Your task to perform on an android device: turn pop-ups on in chrome Image 0: 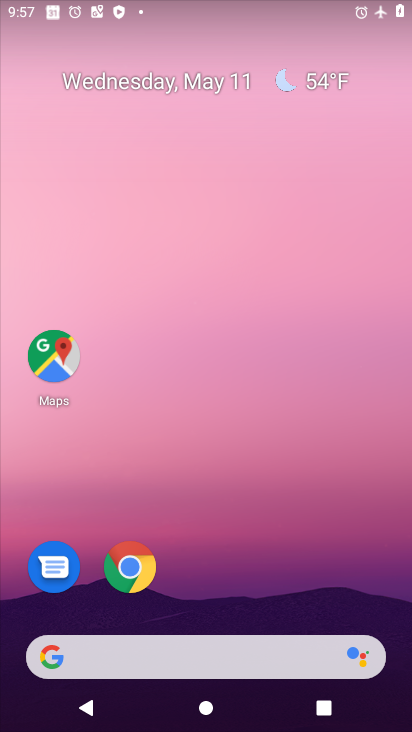
Step 0: click (149, 563)
Your task to perform on an android device: turn pop-ups on in chrome Image 1: 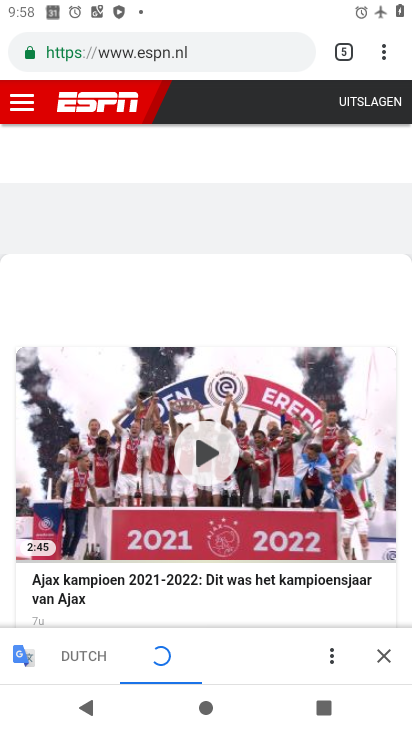
Step 1: click (386, 61)
Your task to perform on an android device: turn pop-ups on in chrome Image 2: 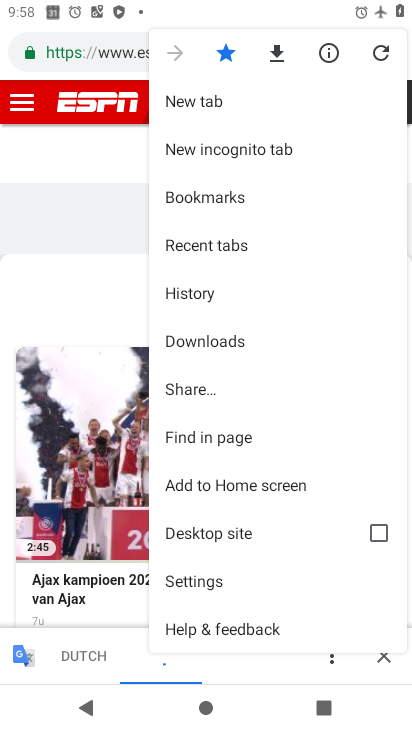
Step 2: click (203, 578)
Your task to perform on an android device: turn pop-ups on in chrome Image 3: 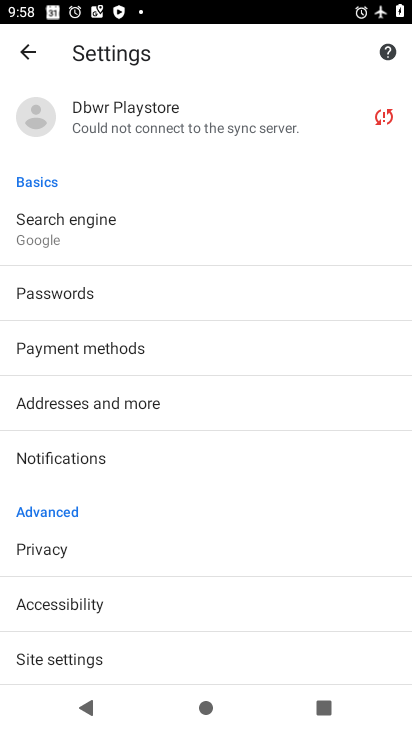
Step 3: click (59, 655)
Your task to perform on an android device: turn pop-ups on in chrome Image 4: 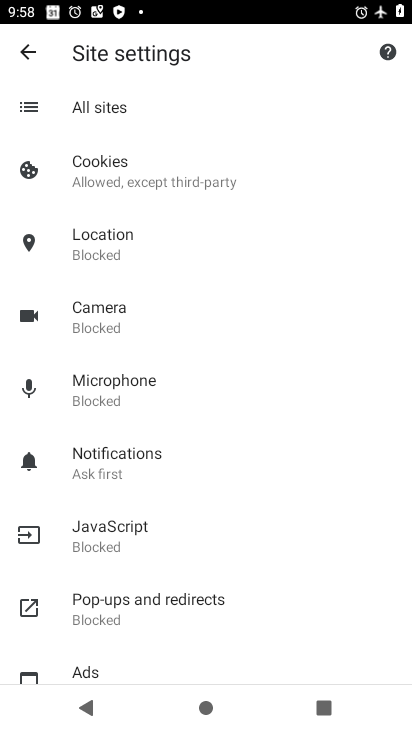
Step 4: click (133, 610)
Your task to perform on an android device: turn pop-ups on in chrome Image 5: 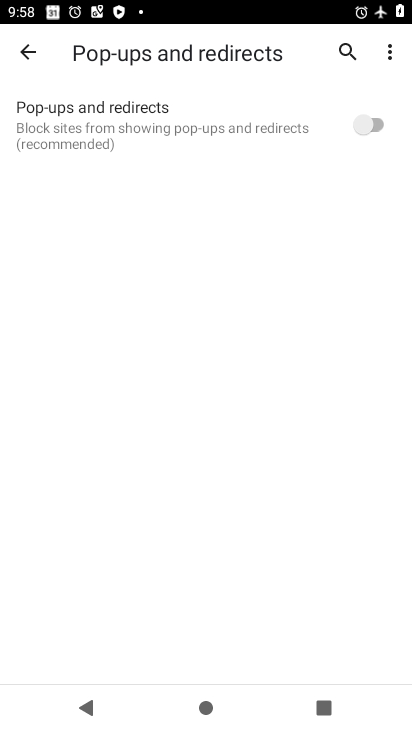
Step 5: click (382, 122)
Your task to perform on an android device: turn pop-ups on in chrome Image 6: 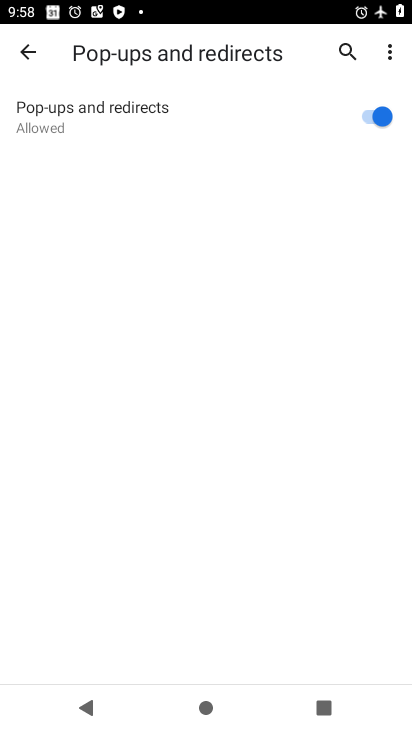
Step 6: task complete